Your task to perform on an android device: Show the shopping cart on newegg. Search for "asus rog" on newegg, select the first entry, and add it to the cart. Image 0: 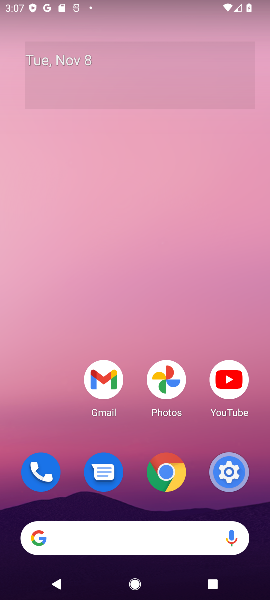
Step 0: click (100, 545)
Your task to perform on an android device: Show the shopping cart on newegg. Search for "asus rog" on newegg, select the first entry, and add it to the cart. Image 1: 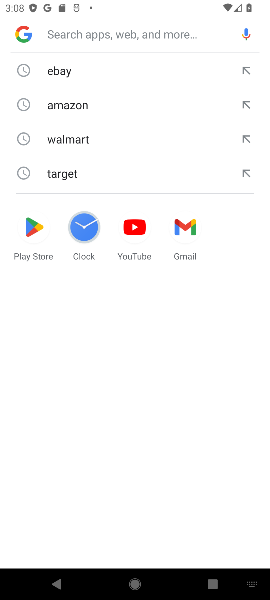
Step 1: type "newegg"
Your task to perform on an android device: Show the shopping cart on newegg. Search for "asus rog" on newegg, select the first entry, and add it to the cart. Image 2: 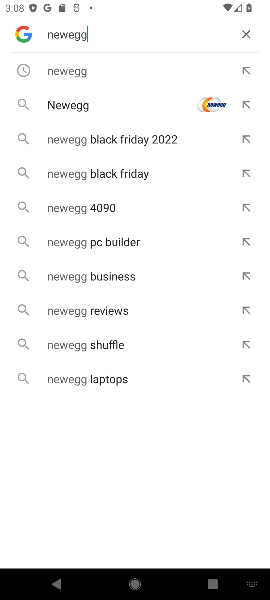
Step 2: click (94, 70)
Your task to perform on an android device: Show the shopping cart on newegg. Search for "asus rog" on newegg, select the first entry, and add it to the cart. Image 3: 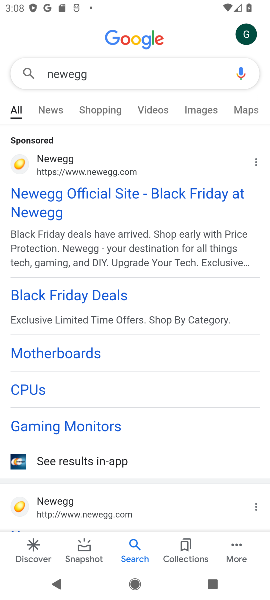
Step 3: click (58, 196)
Your task to perform on an android device: Show the shopping cart on newegg. Search for "asus rog" on newegg, select the first entry, and add it to the cart. Image 4: 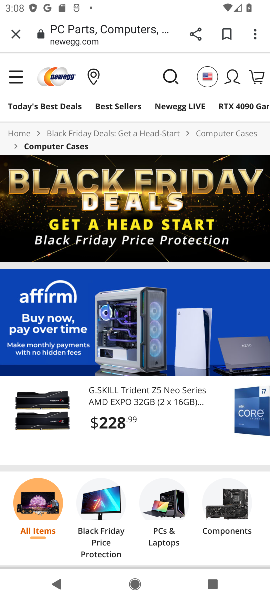
Step 4: click (172, 72)
Your task to perform on an android device: Show the shopping cart on newegg. Search for "asus rog" on newegg, select the first entry, and add it to the cart. Image 5: 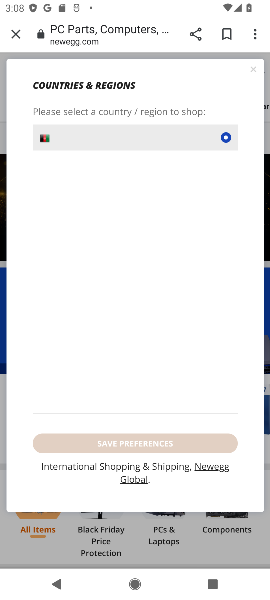
Step 5: type "asus rog"
Your task to perform on an android device: Show the shopping cart on newegg. Search for "asus rog" on newegg, select the first entry, and add it to the cart. Image 6: 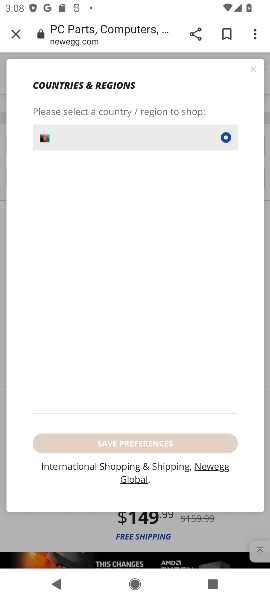
Step 6: task complete